Your task to perform on an android device: change the clock display to digital Image 0: 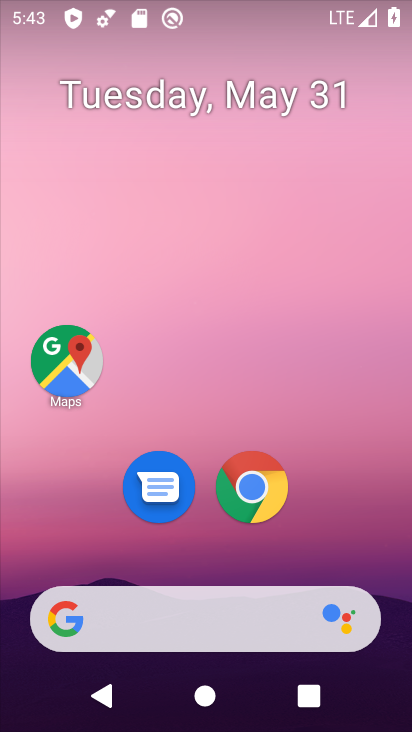
Step 0: drag from (340, 538) to (273, 113)
Your task to perform on an android device: change the clock display to digital Image 1: 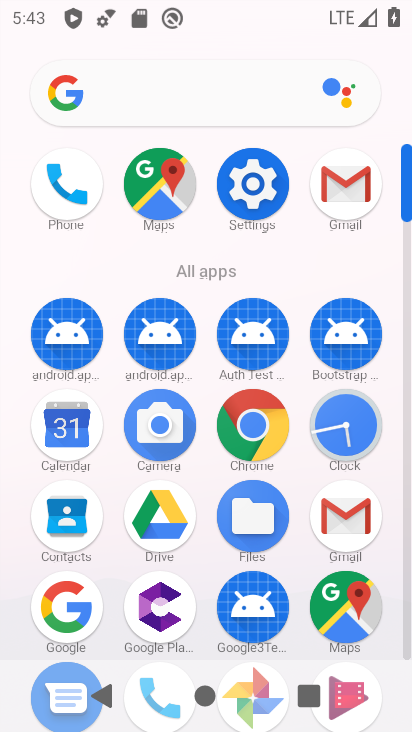
Step 1: click (345, 419)
Your task to perform on an android device: change the clock display to digital Image 2: 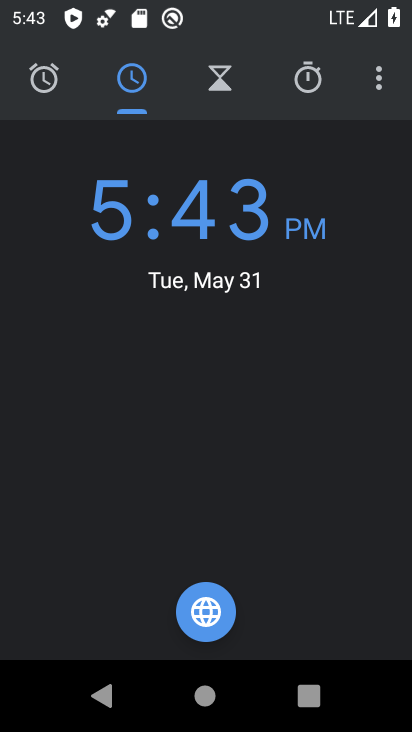
Step 2: click (381, 84)
Your task to perform on an android device: change the clock display to digital Image 3: 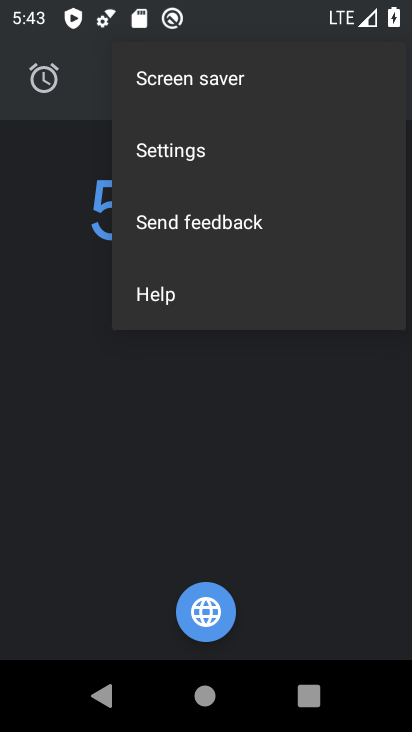
Step 3: click (181, 145)
Your task to perform on an android device: change the clock display to digital Image 4: 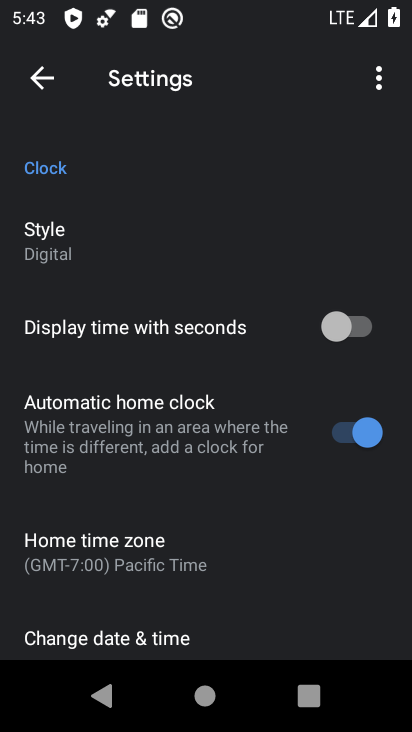
Step 4: task complete